Your task to perform on an android device: open app "Instagram" (install if not already installed) Image 0: 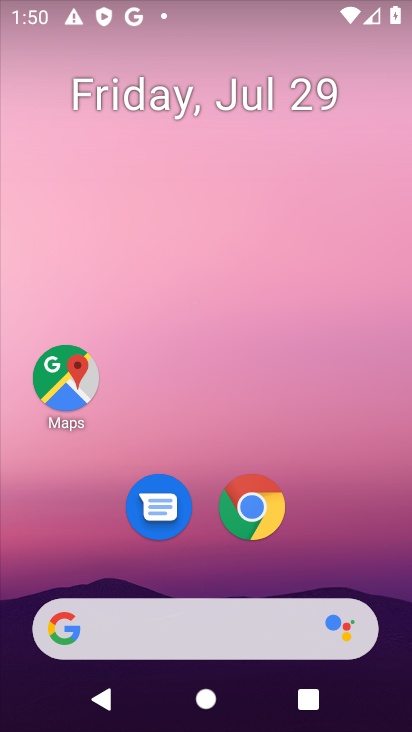
Step 0: click (263, 609)
Your task to perform on an android device: open app "Instagram" (install if not already installed) Image 1: 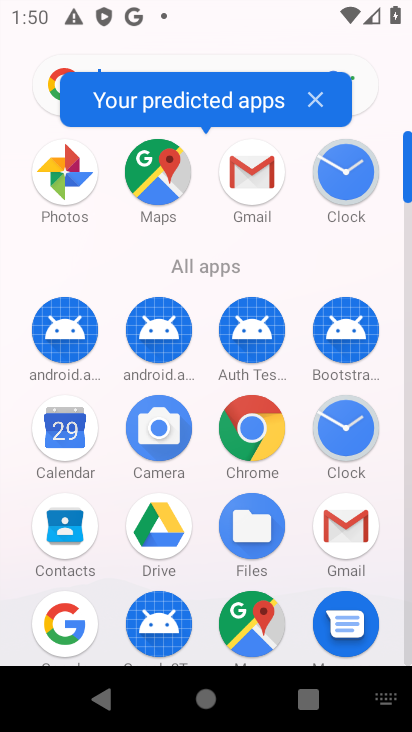
Step 1: type "instagram"
Your task to perform on an android device: open app "Instagram" (install if not already installed) Image 2: 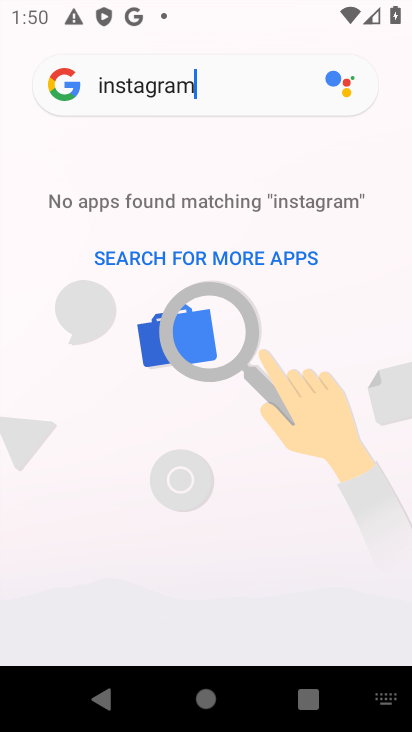
Step 2: click (324, 105)
Your task to perform on an android device: open app "Instagram" (install if not already installed) Image 3: 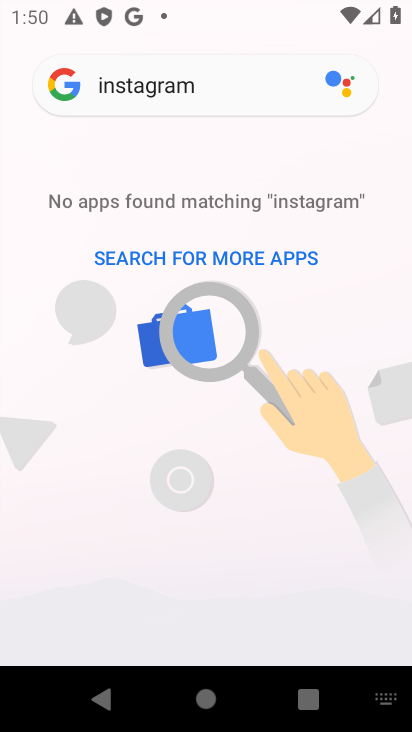
Step 3: click (253, 263)
Your task to perform on an android device: open app "Instagram" (install if not already installed) Image 4: 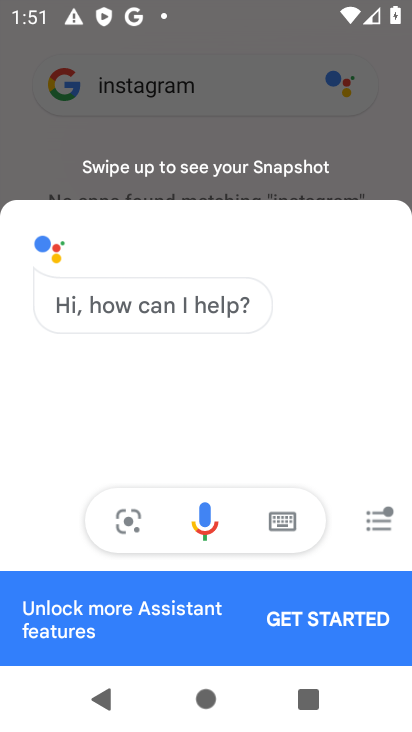
Step 4: click (276, 535)
Your task to perform on an android device: open app "Instagram" (install if not already installed) Image 5: 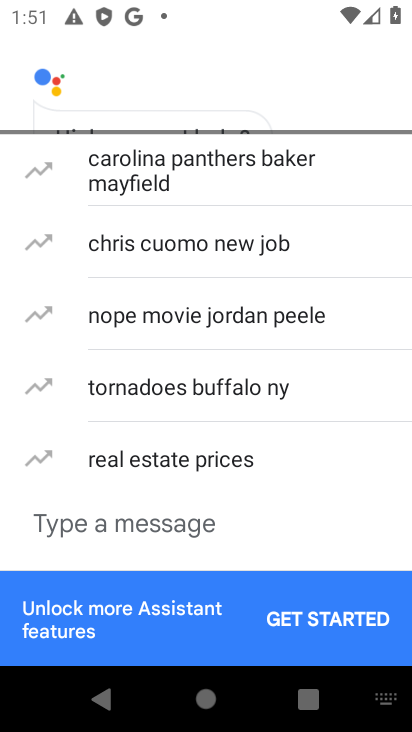
Step 5: type "instafgram"
Your task to perform on an android device: open app "Instagram" (install if not already installed) Image 6: 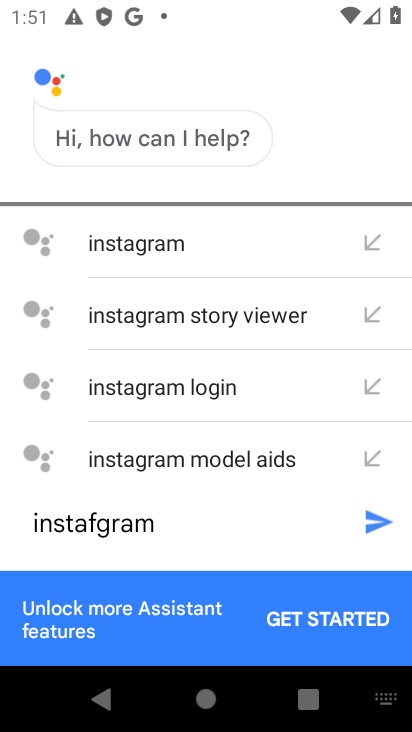
Step 6: click (203, 235)
Your task to perform on an android device: open app "Instagram" (install if not already installed) Image 7: 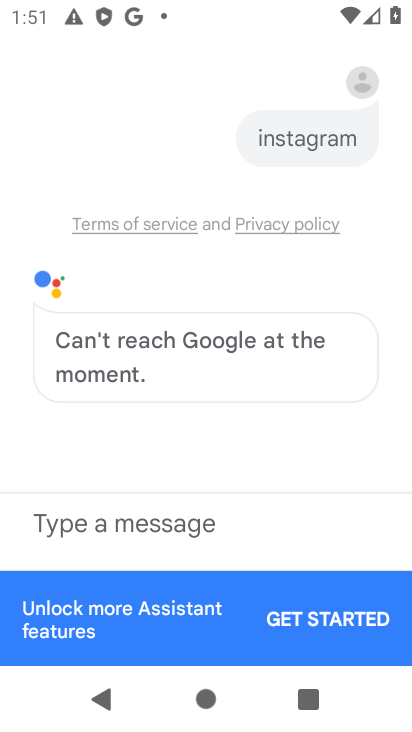
Step 7: task complete